Your task to perform on an android device: Search for pizza restaurants on Maps Image 0: 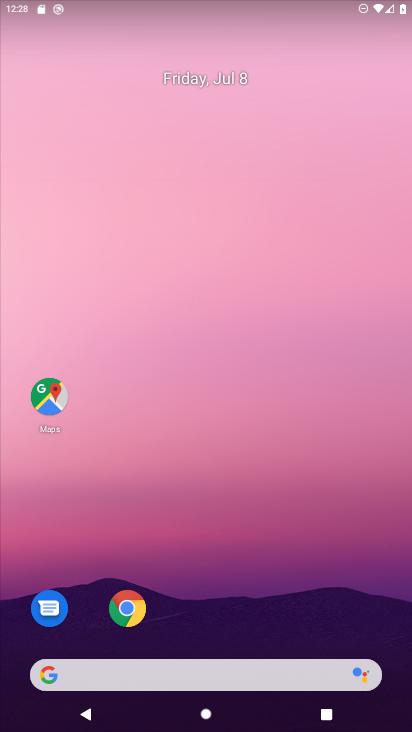
Step 0: drag from (261, 724) to (218, 153)
Your task to perform on an android device: Search for pizza restaurants on Maps Image 1: 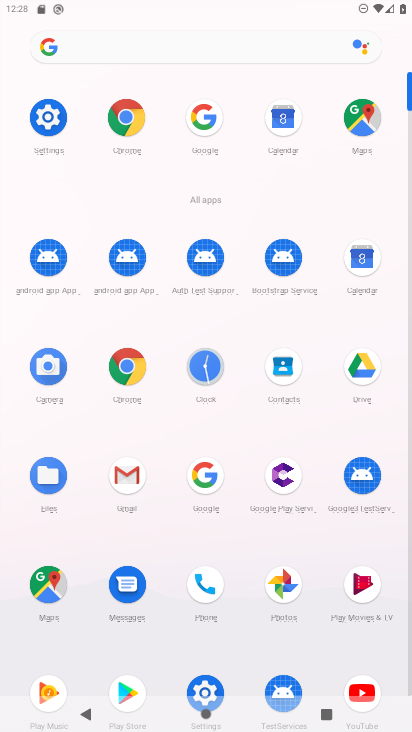
Step 1: click (357, 117)
Your task to perform on an android device: Search for pizza restaurants on Maps Image 2: 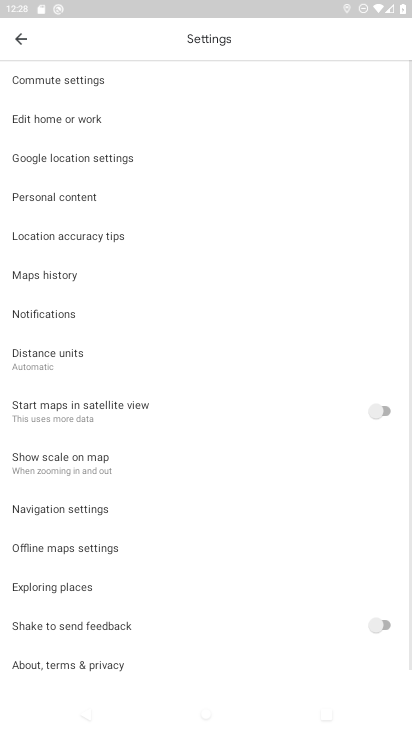
Step 2: click (21, 33)
Your task to perform on an android device: Search for pizza restaurants on Maps Image 3: 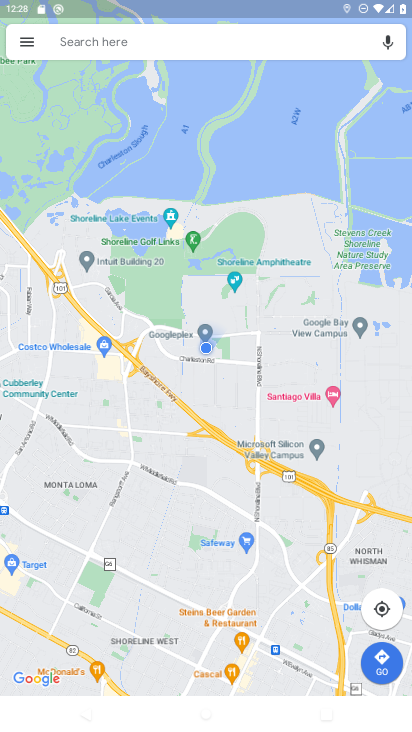
Step 3: click (210, 39)
Your task to perform on an android device: Search for pizza restaurants on Maps Image 4: 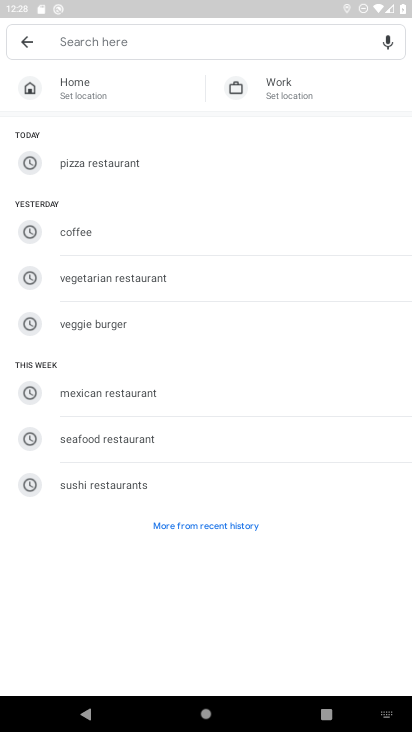
Step 4: type "Pizza restaurants"
Your task to perform on an android device: Search for pizza restaurants on Maps Image 5: 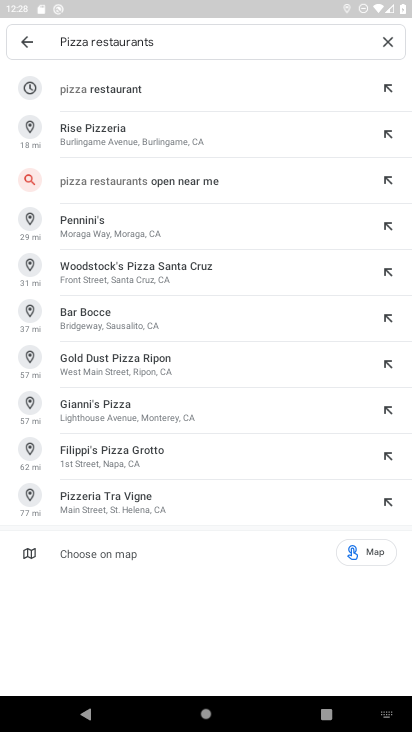
Step 5: click (92, 91)
Your task to perform on an android device: Search for pizza restaurants on Maps Image 6: 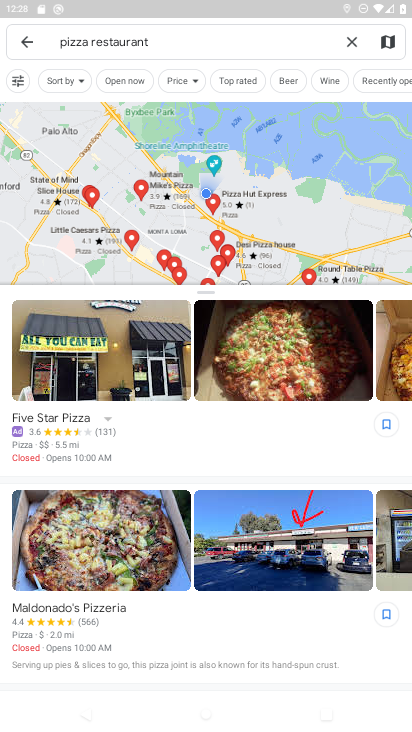
Step 6: task complete